Your task to perform on an android device: turn on location history Image 0: 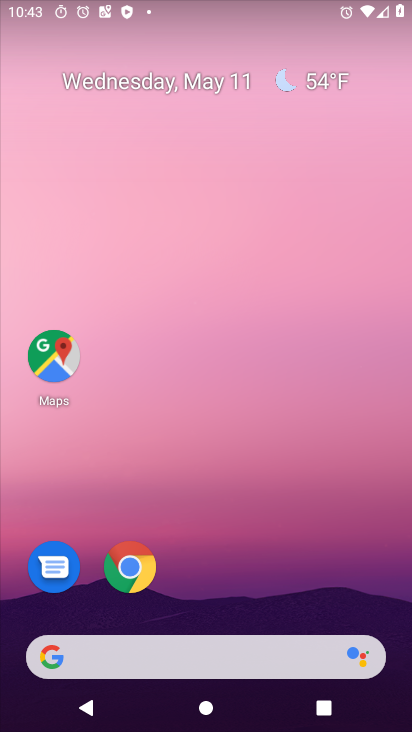
Step 0: drag from (194, 602) to (230, 15)
Your task to perform on an android device: turn on location history Image 1: 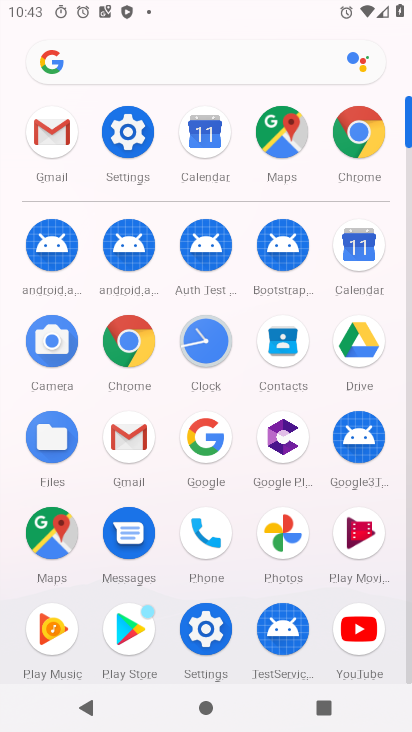
Step 1: click (142, 143)
Your task to perform on an android device: turn on location history Image 2: 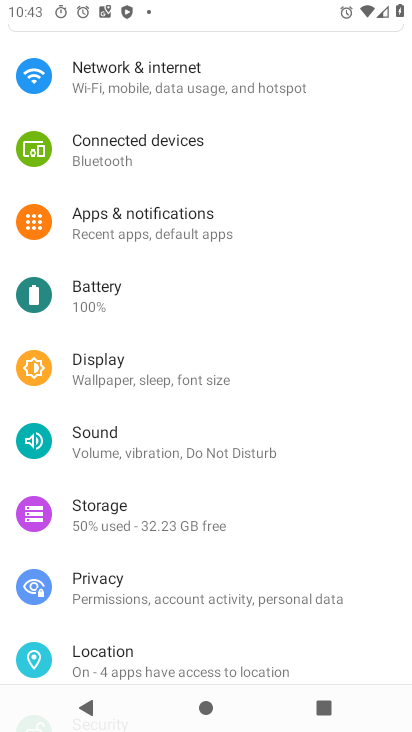
Step 2: drag from (176, 615) to (216, 220)
Your task to perform on an android device: turn on location history Image 3: 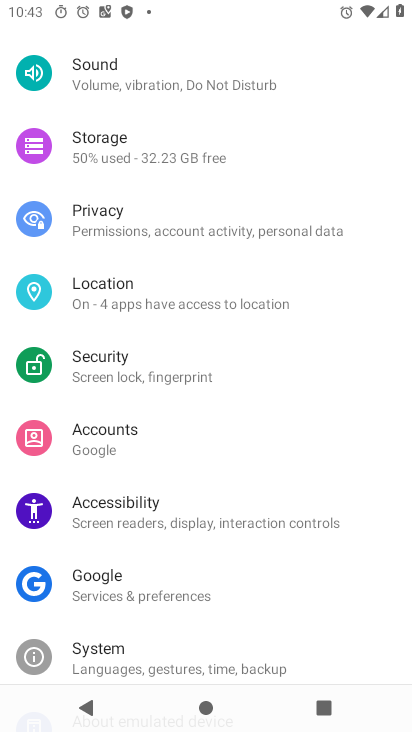
Step 3: click (119, 300)
Your task to perform on an android device: turn on location history Image 4: 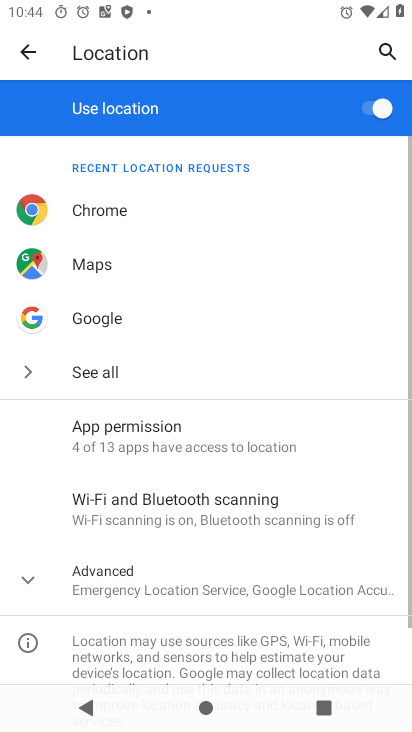
Step 4: click (161, 580)
Your task to perform on an android device: turn on location history Image 5: 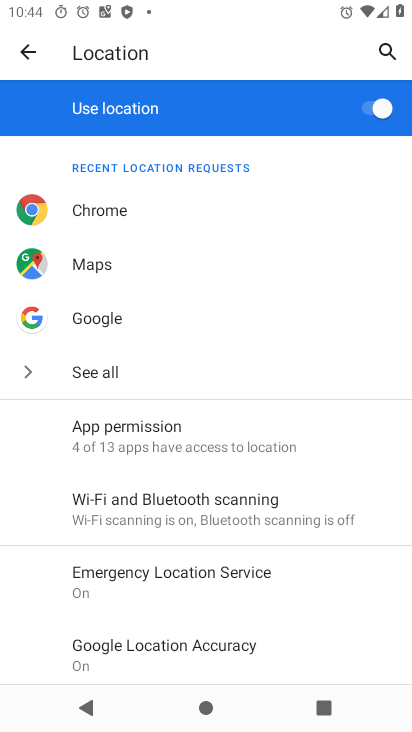
Step 5: drag from (168, 599) to (212, 298)
Your task to perform on an android device: turn on location history Image 6: 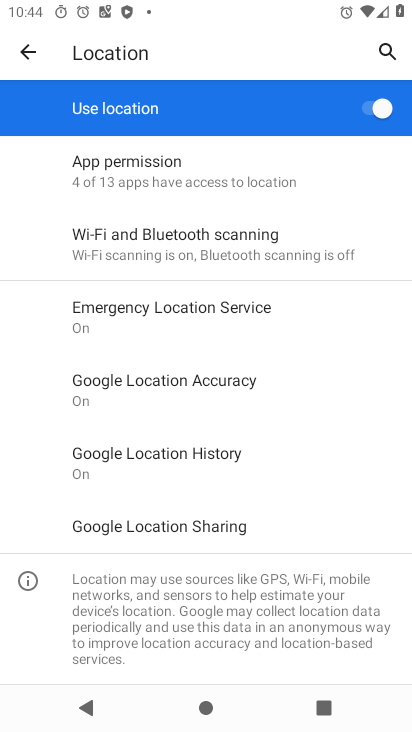
Step 6: click (158, 451)
Your task to perform on an android device: turn on location history Image 7: 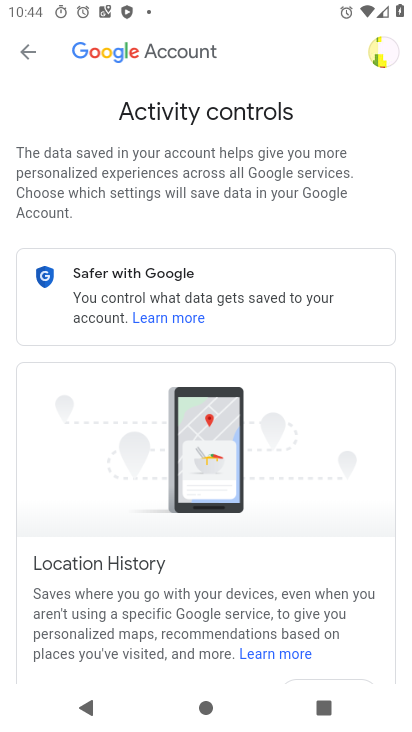
Step 7: task complete